Your task to perform on an android device: add a contact Image 0: 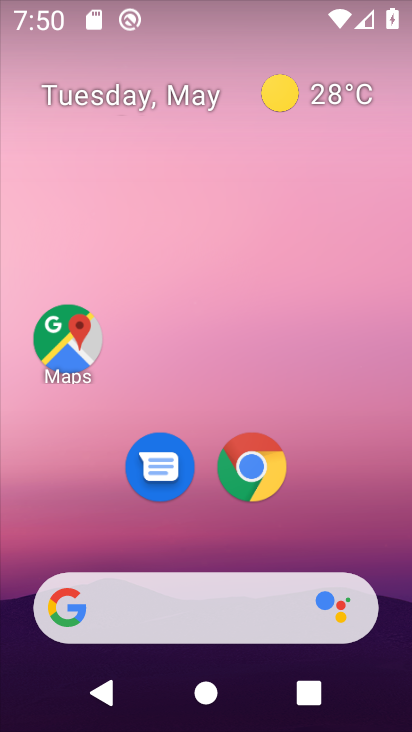
Step 0: click (373, 173)
Your task to perform on an android device: add a contact Image 1: 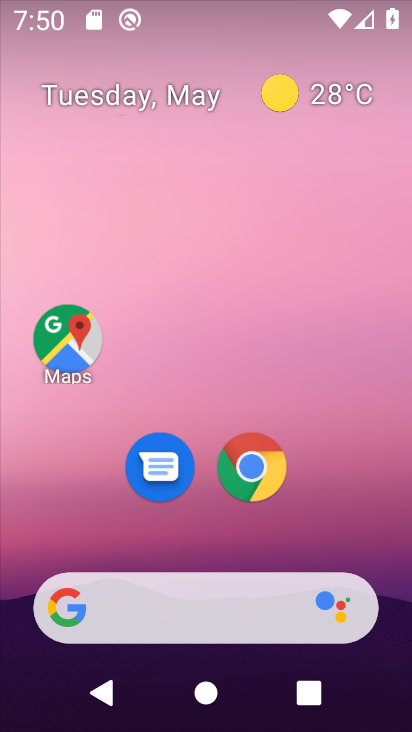
Step 1: drag from (395, 708) to (386, 185)
Your task to perform on an android device: add a contact Image 2: 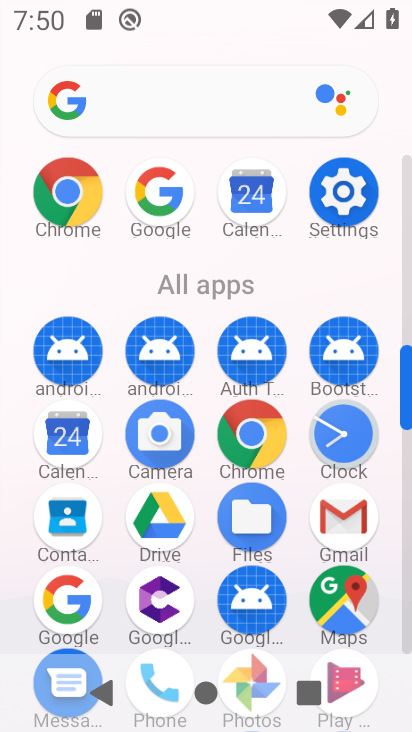
Step 2: click (76, 521)
Your task to perform on an android device: add a contact Image 3: 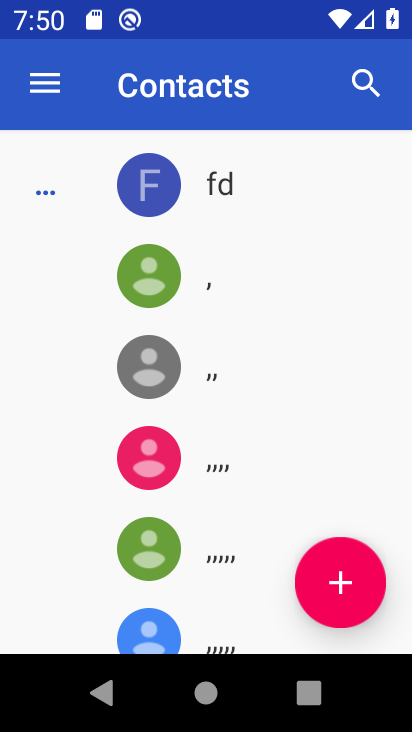
Step 3: press back button
Your task to perform on an android device: add a contact Image 4: 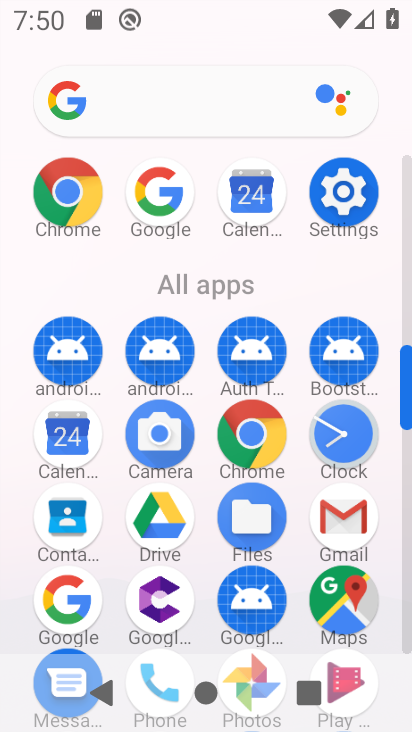
Step 4: click (71, 542)
Your task to perform on an android device: add a contact Image 5: 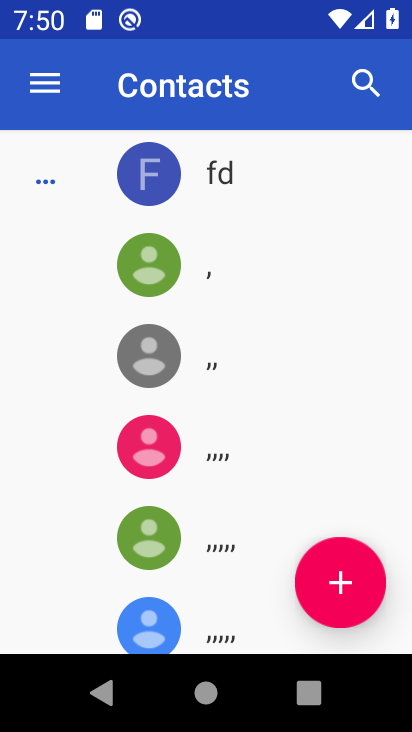
Step 5: click (331, 591)
Your task to perform on an android device: add a contact Image 6: 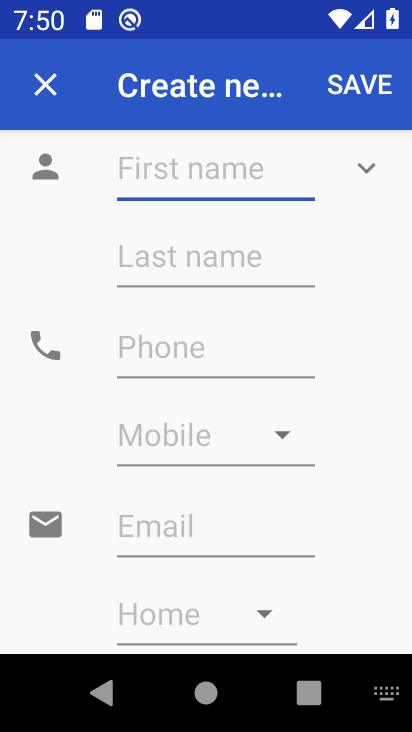
Step 6: click (228, 172)
Your task to perform on an android device: add a contact Image 7: 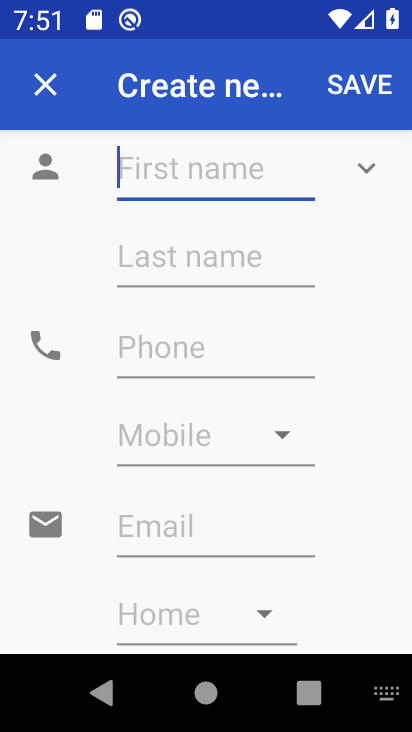
Step 7: type "jha2"
Your task to perform on an android device: add a contact Image 8: 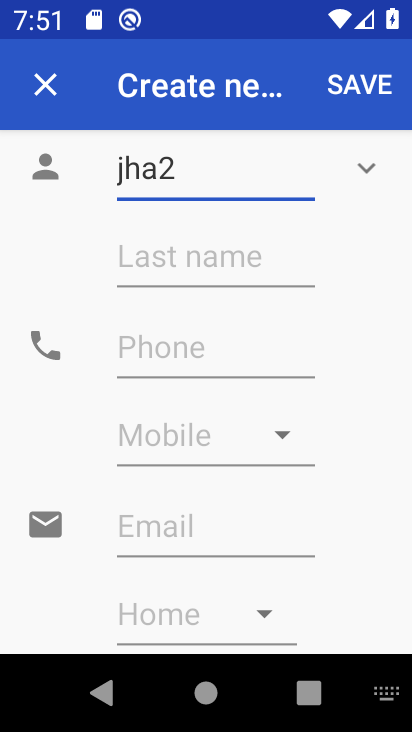
Step 8: click (163, 249)
Your task to perform on an android device: add a contact Image 9: 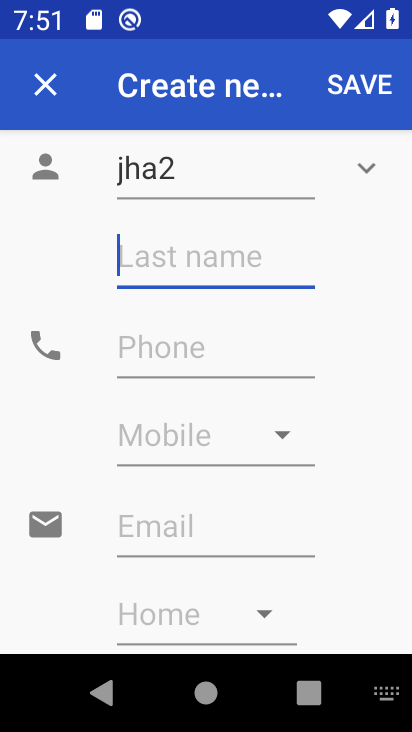
Step 9: type "la2"
Your task to perform on an android device: add a contact Image 10: 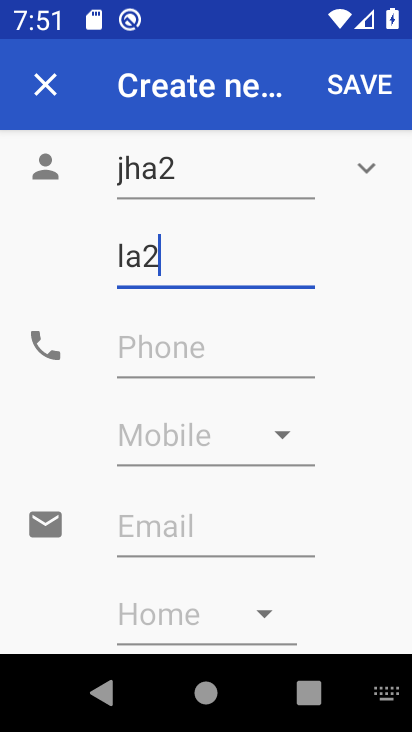
Step 10: click (219, 362)
Your task to perform on an android device: add a contact Image 11: 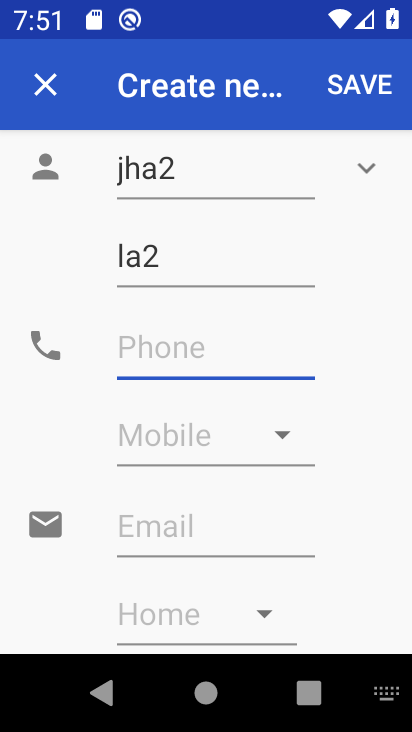
Step 11: type "45477699885453"
Your task to perform on an android device: add a contact Image 12: 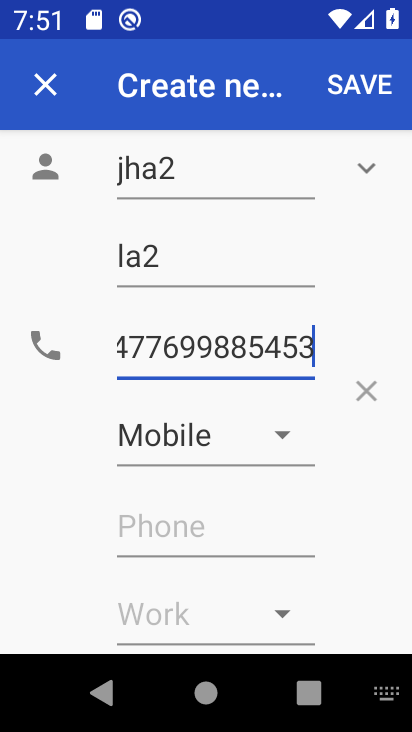
Step 12: click (359, 77)
Your task to perform on an android device: add a contact Image 13: 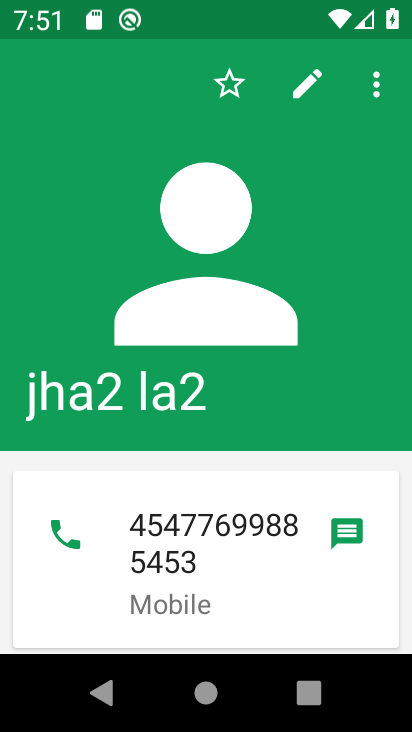
Step 13: task complete